Your task to perform on an android device: Go to battery settings Image 0: 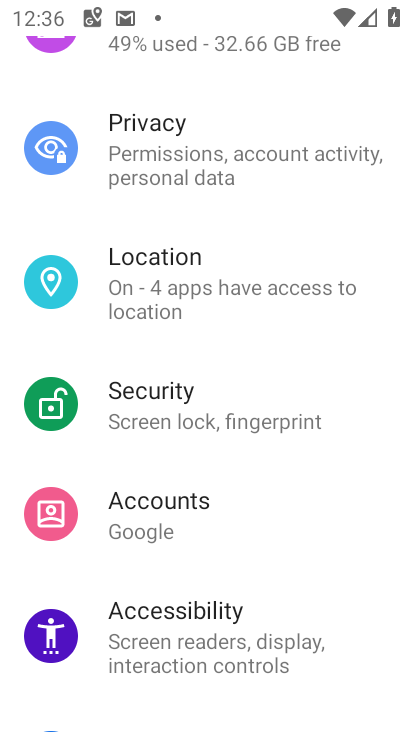
Step 0: drag from (269, 277) to (275, 710)
Your task to perform on an android device: Go to battery settings Image 1: 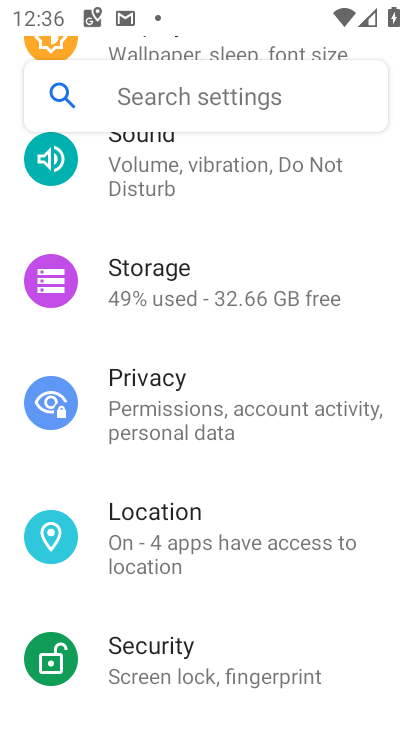
Step 1: drag from (224, 198) to (220, 631)
Your task to perform on an android device: Go to battery settings Image 2: 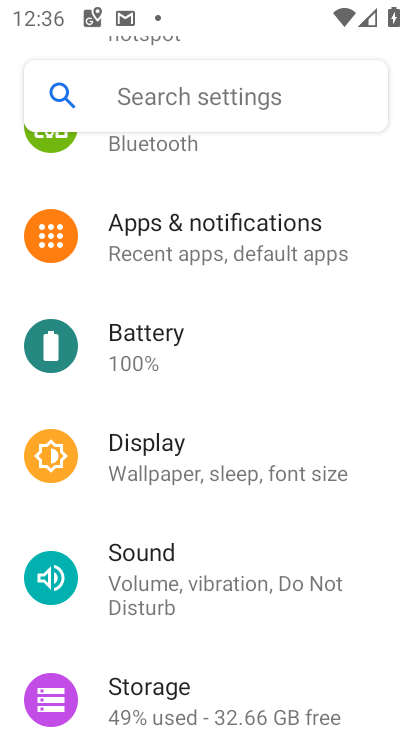
Step 2: click (232, 367)
Your task to perform on an android device: Go to battery settings Image 3: 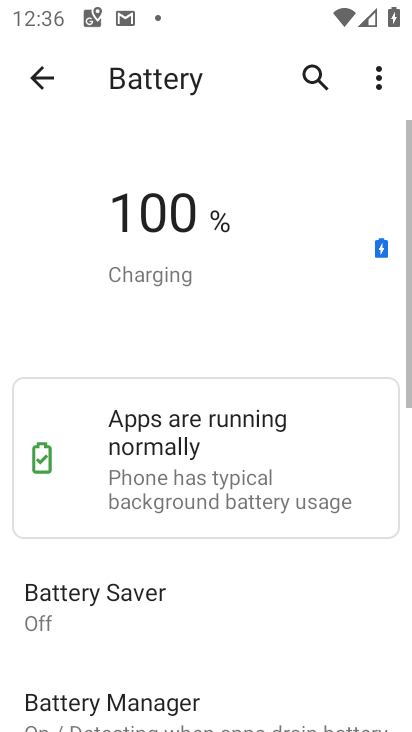
Step 3: task complete